Your task to perform on an android device: Go to CNN.com Image 0: 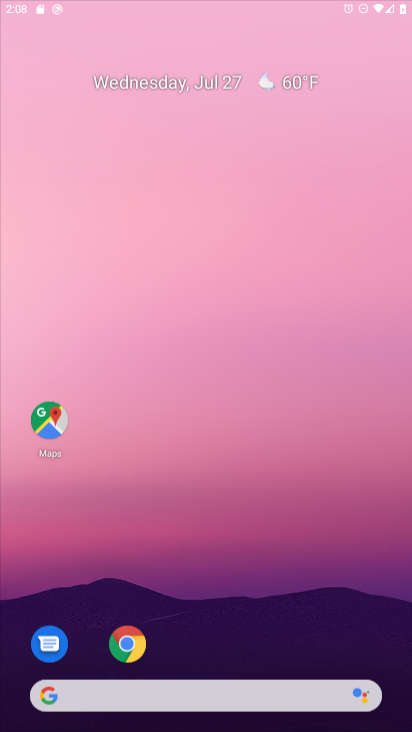
Step 0: drag from (232, 309) to (239, 176)
Your task to perform on an android device: Go to CNN.com Image 1: 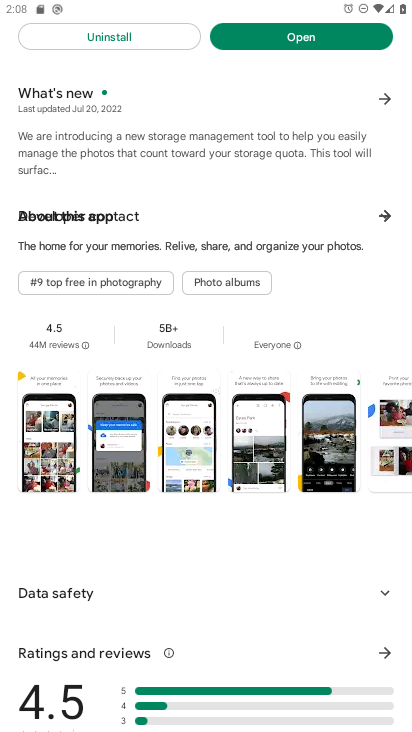
Step 1: press home button
Your task to perform on an android device: Go to CNN.com Image 2: 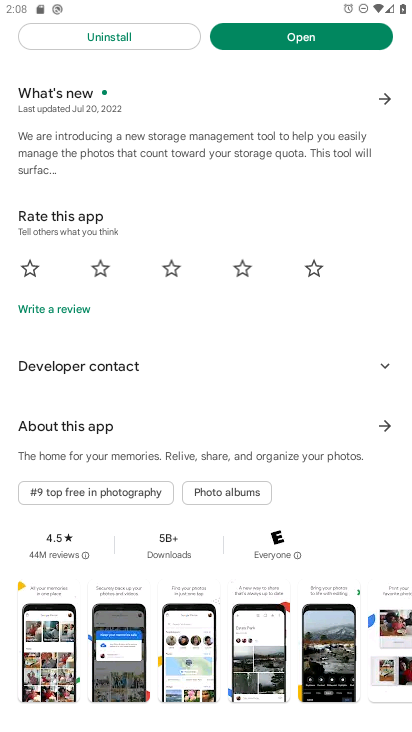
Step 2: press home button
Your task to perform on an android device: Go to CNN.com Image 3: 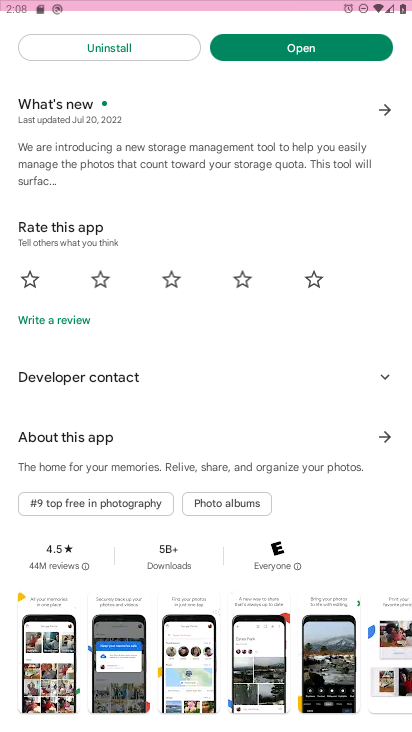
Step 3: drag from (246, 494) to (247, 71)
Your task to perform on an android device: Go to CNN.com Image 4: 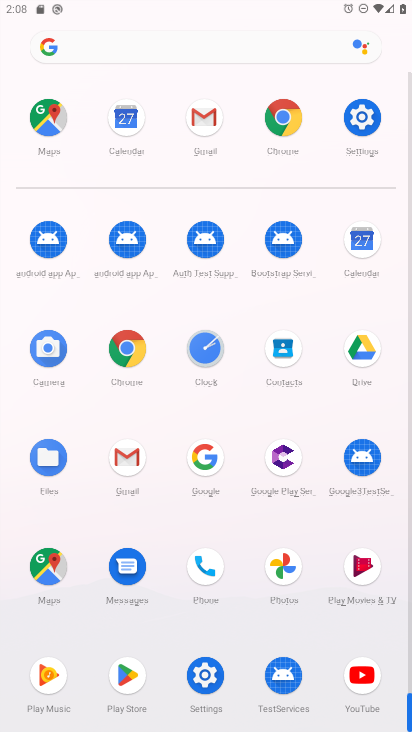
Step 4: click (159, 47)
Your task to perform on an android device: Go to CNN.com Image 5: 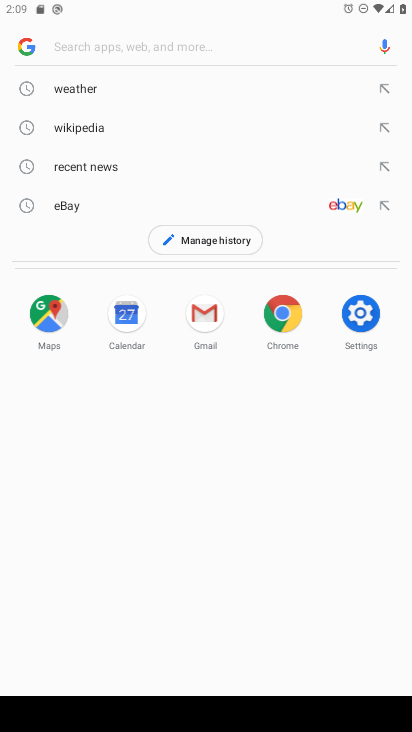
Step 5: type " CNN.com"
Your task to perform on an android device: Go to CNN.com Image 6: 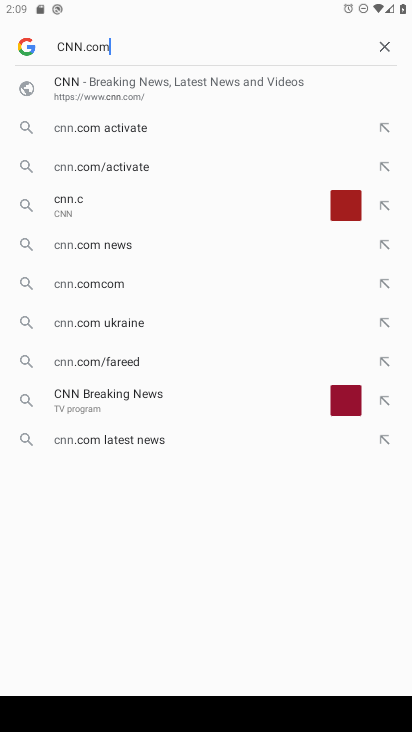
Step 6: type ""
Your task to perform on an android device: Go to CNN.com Image 7: 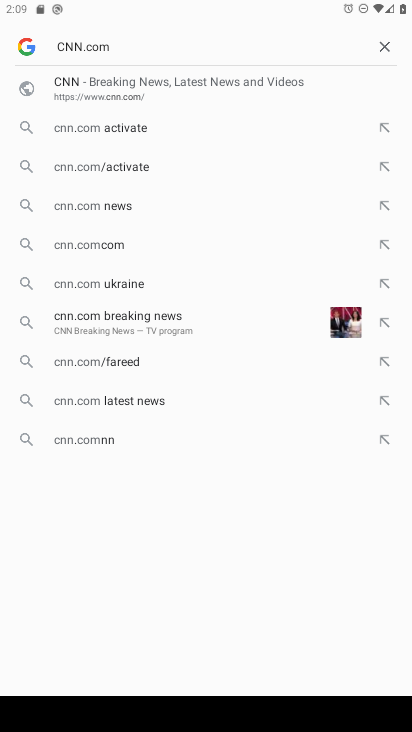
Step 7: click (104, 76)
Your task to perform on an android device: Go to CNN.com Image 8: 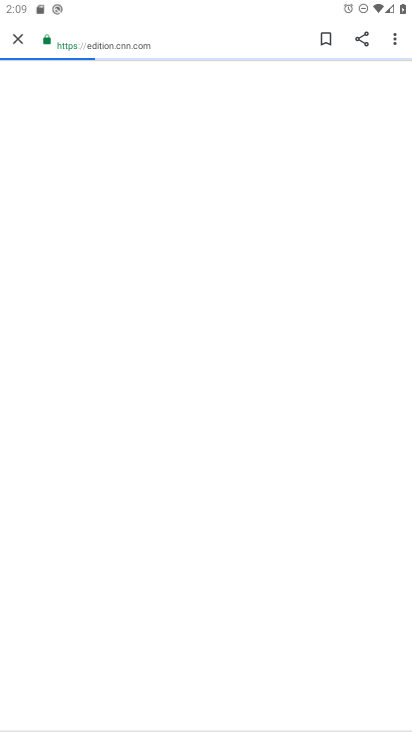
Step 8: task complete